Your task to perform on an android device: Turn on the flashlight Image 0: 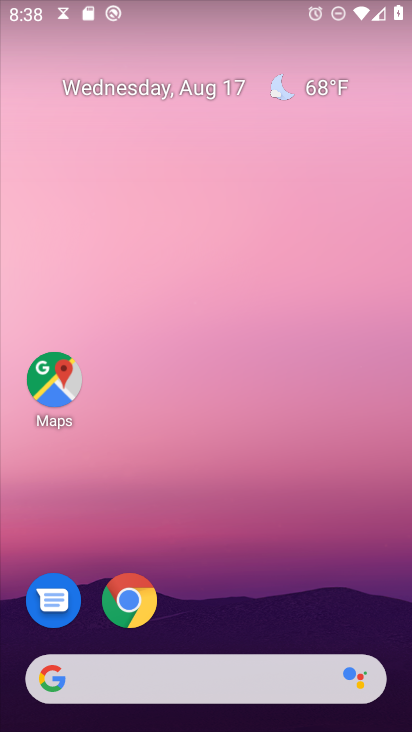
Step 0: press home button
Your task to perform on an android device: Turn on the flashlight Image 1: 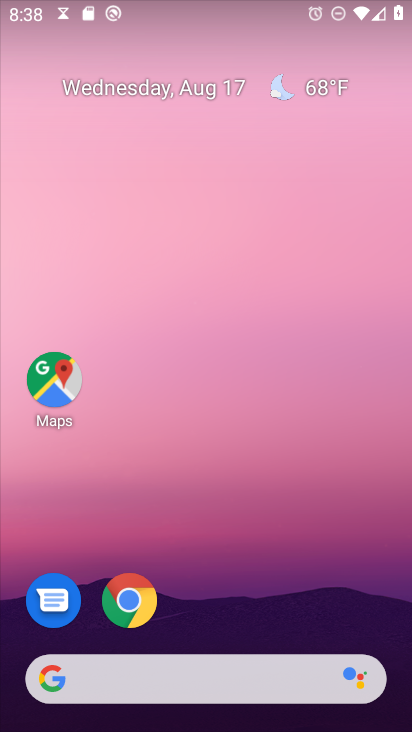
Step 1: task complete